Your task to perform on an android device: What's the weather today? Image 0: 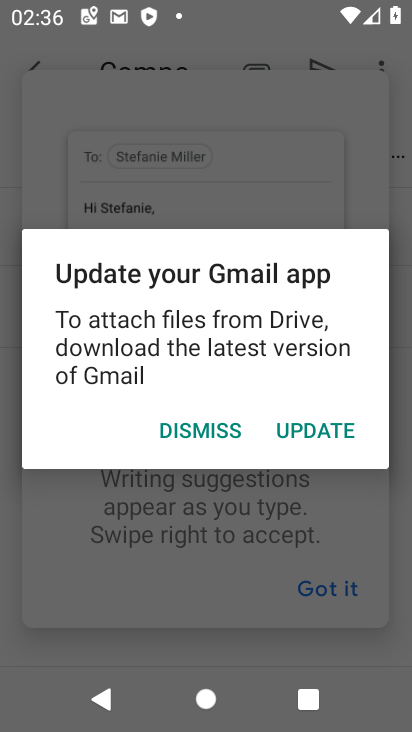
Step 0: press home button
Your task to perform on an android device: What's the weather today? Image 1: 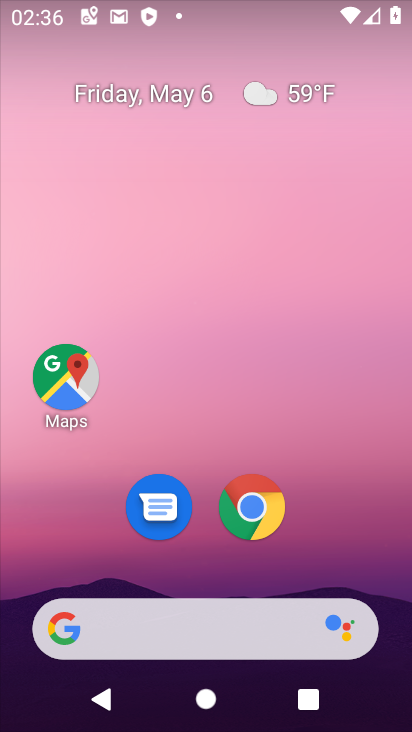
Step 1: click (265, 517)
Your task to perform on an android device: What's the weather today? Image 2: 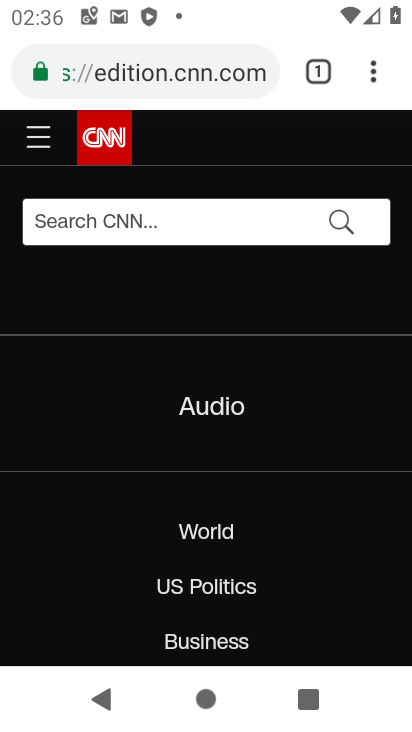
Step 2: click (196, 74)
Your task to perform on an android device: What's the weather today? Image 3: 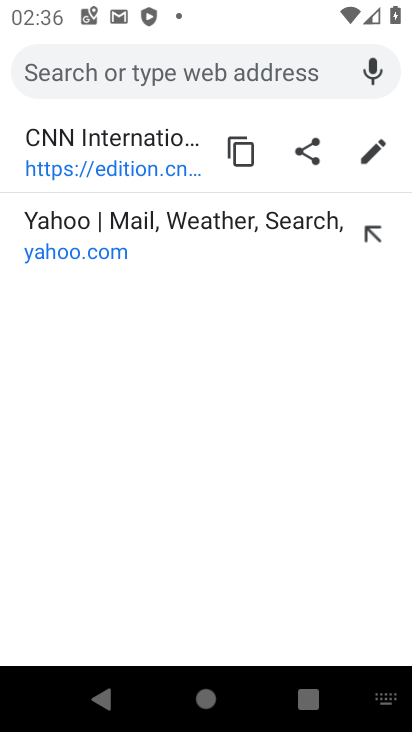
Step 3: type "whats the weather today?"
Your task to perform on an android device: What's the weather today? Image 4: 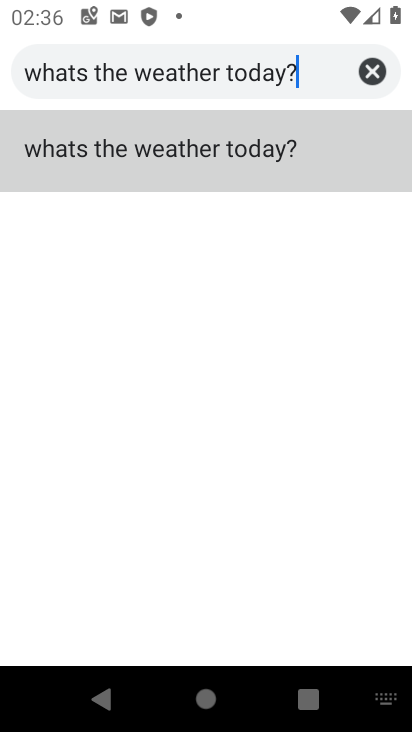
Step 4: click (231, 146)
Your task to perform on an android device: What's the weather today? Image 5: 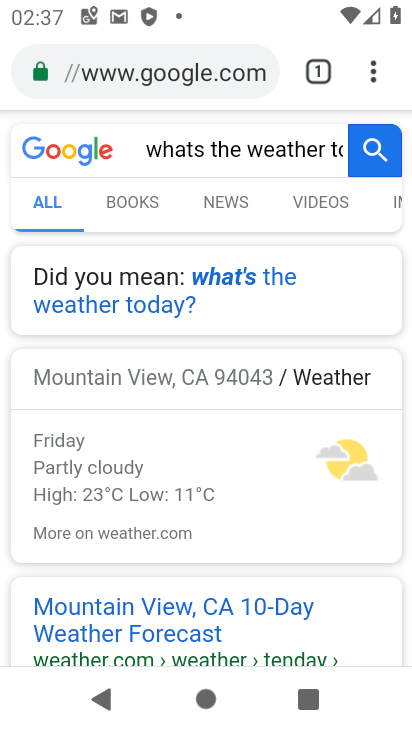
Step 5: click (248, 284)
Your task to perform on an android device: What's the weather today? Image 6: 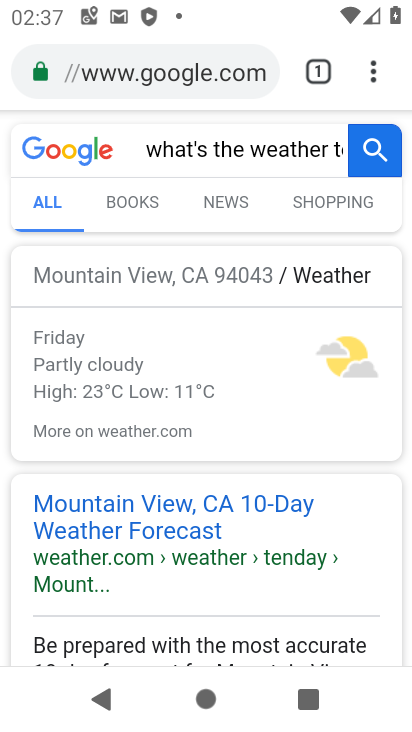
Step 6: task complete